Your task to perform on an android device: turn off sleep mode Image 0: 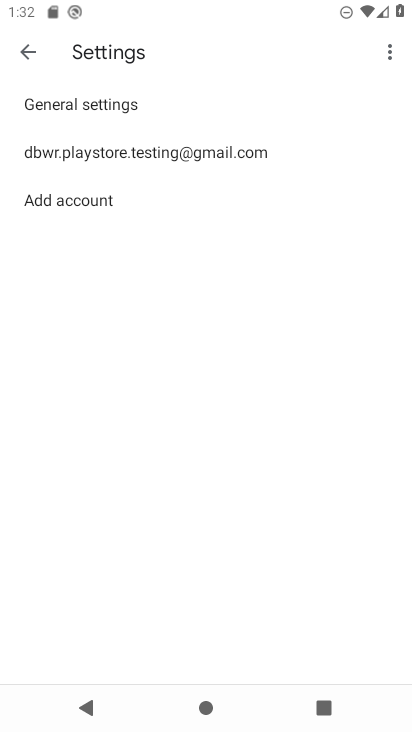
Step 0: drag from (243, 677) to (291, 130)
Your task to perform on an android device: turn off sleep mode Image 1: 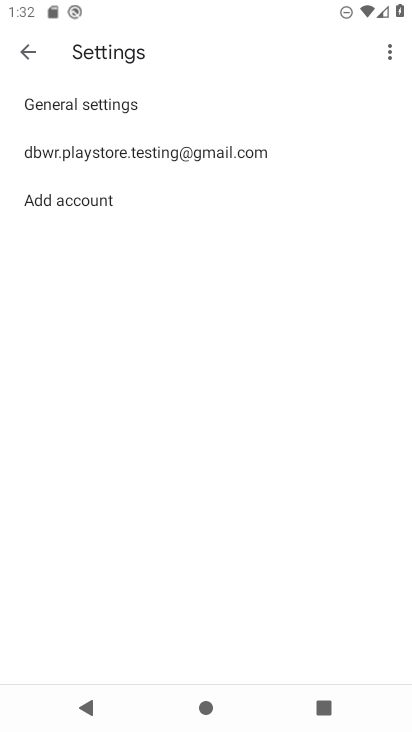
Step 1: press home button
Your task to perform on an android device: turn off sleep mode Image 2: 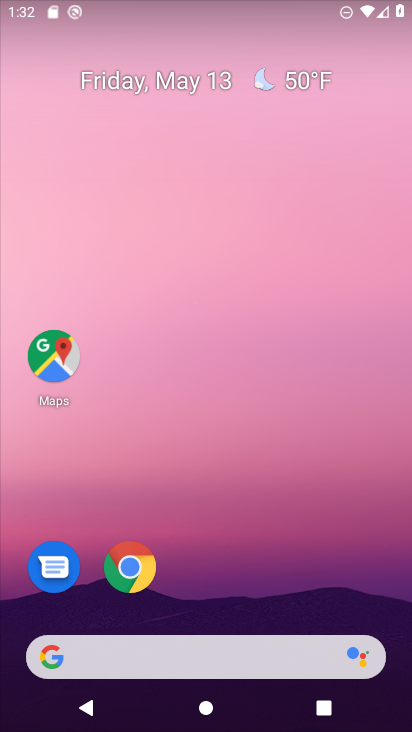
Step 2: drag from (240, 625) to (224, 199)
Your task to perform on an android device: turn off sleep mode Image 3: 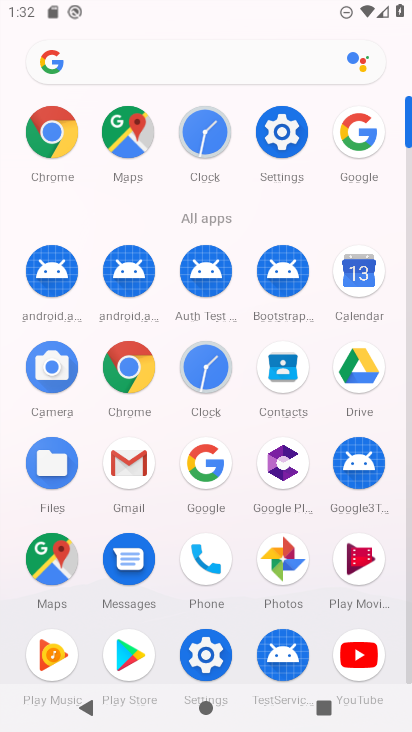
Step 3: click (290, 134)
Your task to perform on an android device: turn off sleep mode Image 4: 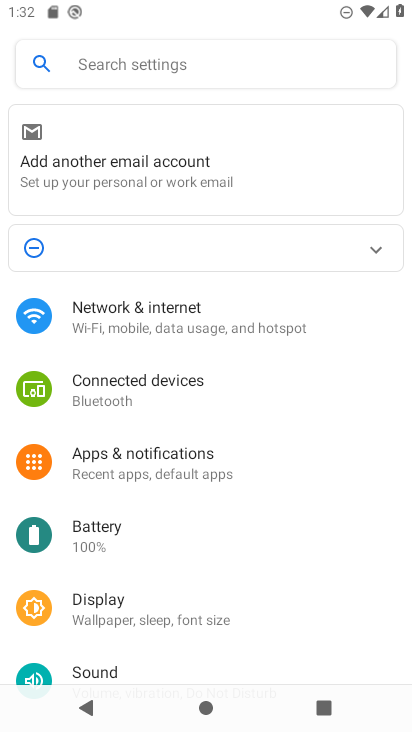
Step 4: click (141, 627)
Your task to perform on an android device: turn off sleep mode Image 5: 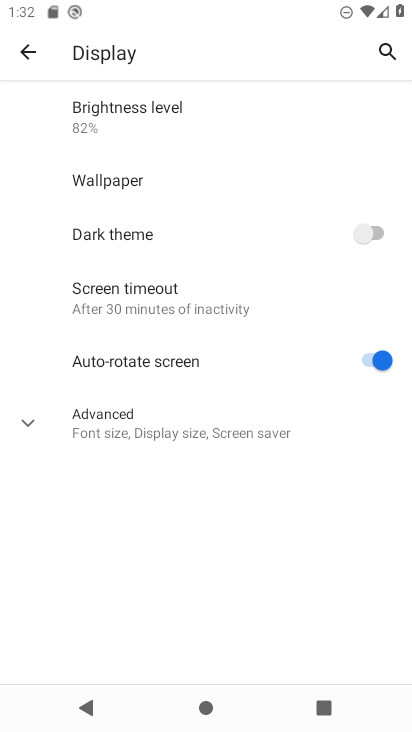
Step 5: click (74, 306)
Your task to perform on an android device: turn off sleep mode Image 6: 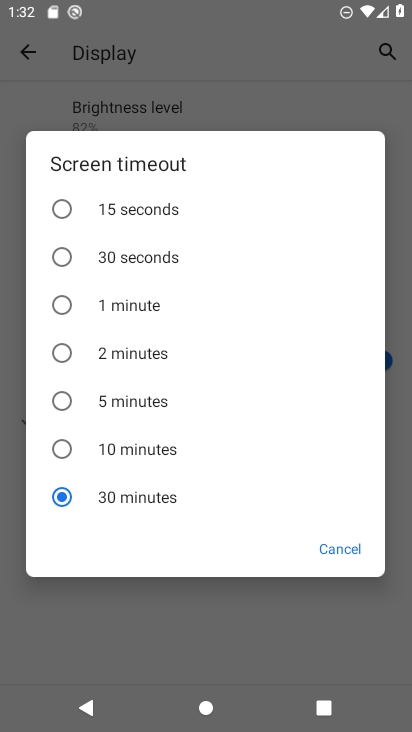
Step 6: click (74, 206)
Your task to perform on an android device: turn off sleep mode Image 7: 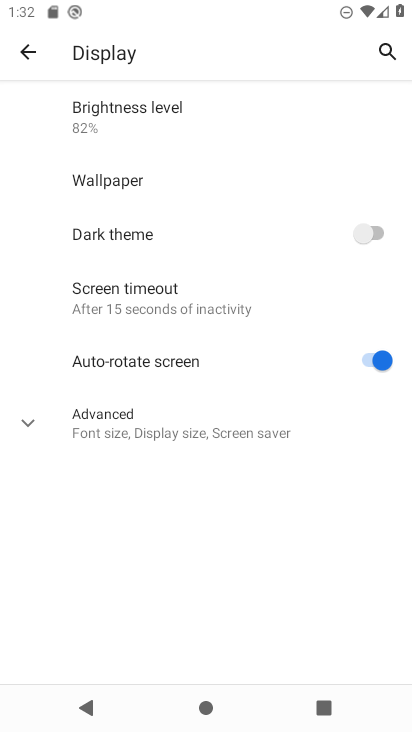
Step 7: task complete